Your task to perform on an android device: toggle notifications settings in the gmail app Image 0: 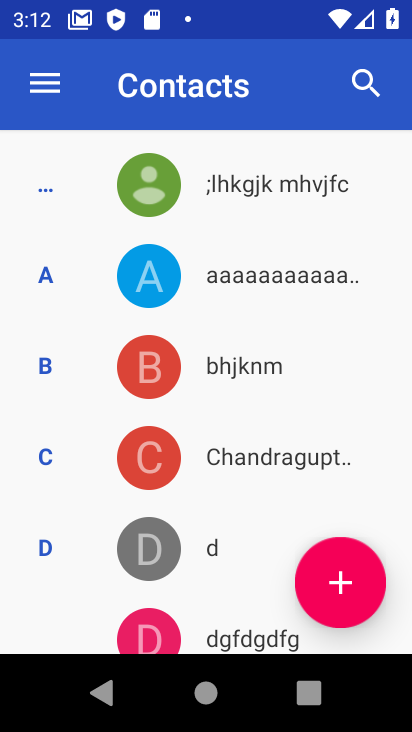
Step 0: press home button
Your task to perform on an android device: toggle notifications settings in the gmail app Image 1: 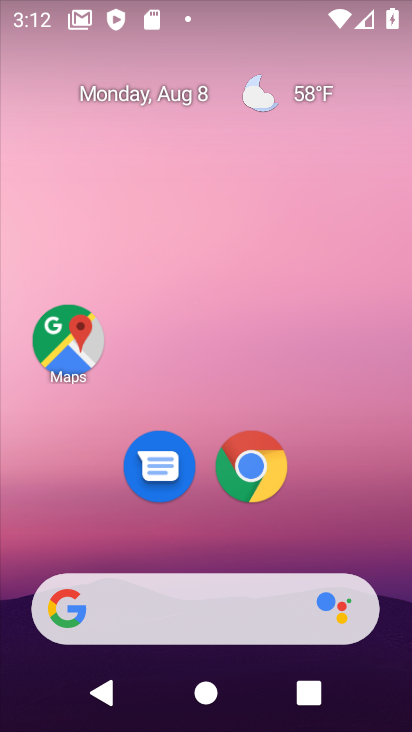
Step 1: drag from (183, 594) to (197, 227)
Your task to perform on an android device: toggle notifications settings in the gmail app Image 2: 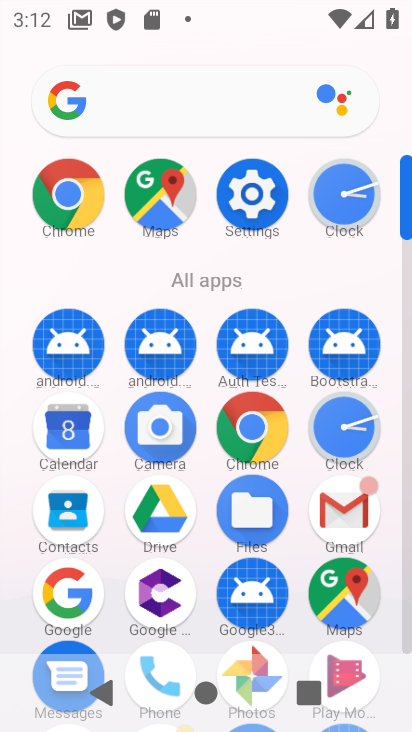
Step 2: click (339, 505)
Your task to perform on an android device: toggle notifications settings in the gmail app Image 3: 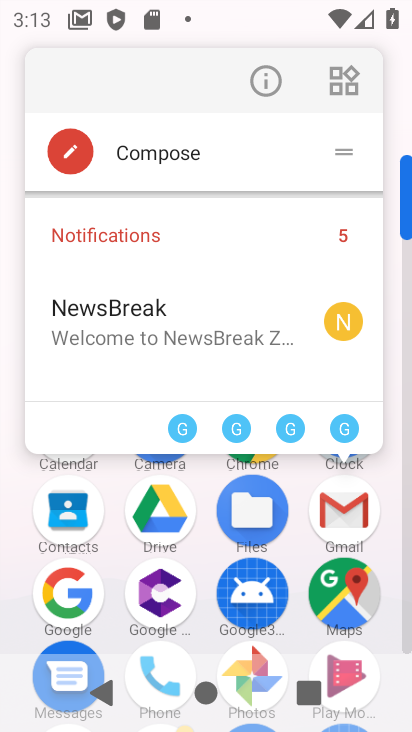
Step 3: click (360, 506)
Your task to perform on an android device: toggle notifications settings in the gmail app Image 4: 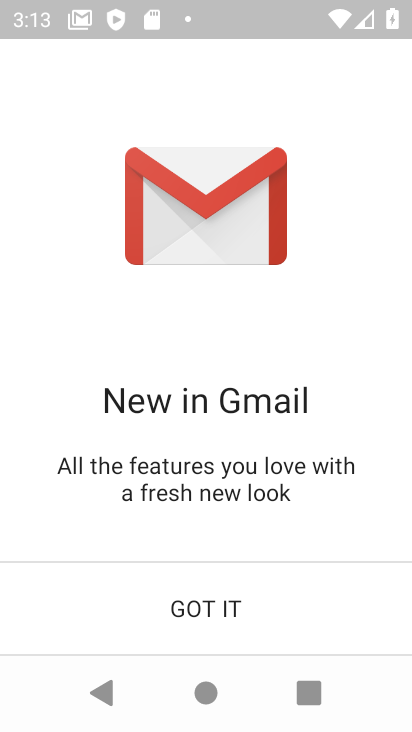
Step 4: click (212, 613)
Your task to perform on an android device: toggle notifications settings in the gmail app Image 5: 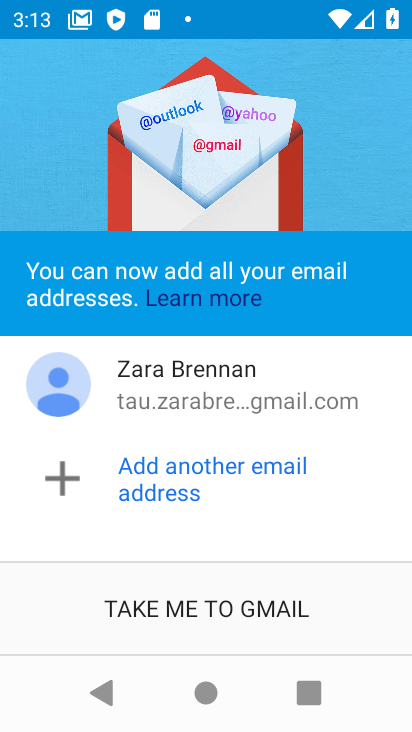
Step 5: click (212, 613)
Your task to perform on an android device: toggle notifications settings in the gmail app Image 6: 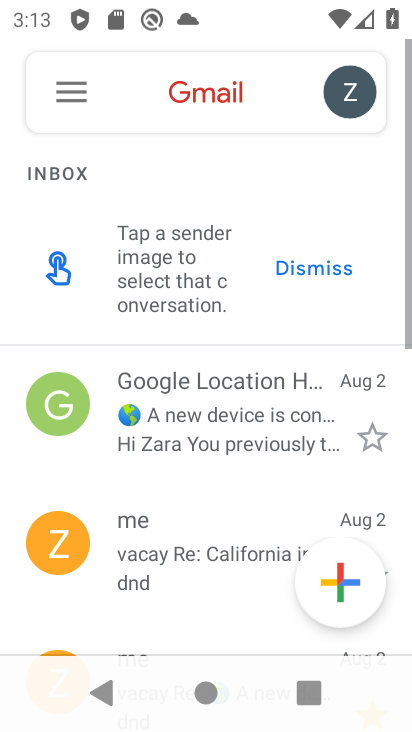
Step 6: click (64, 95)
Your task to perform on an android device: toggle notifications settings in the gmail app Image 7: 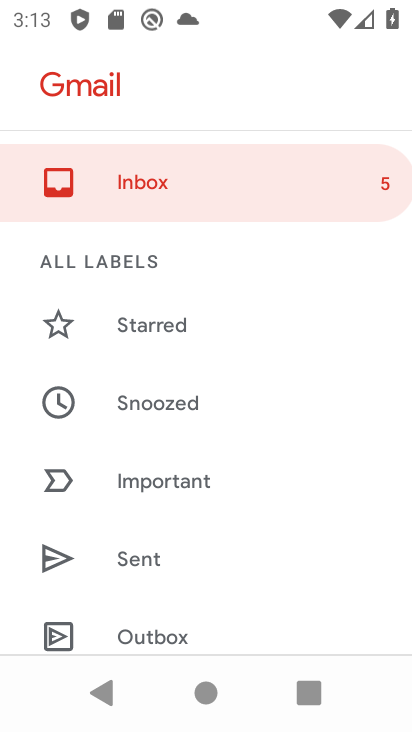
Step 7: drag from (227, 639) to (290, 205)
Your task to perform on an android device: toggle notifications settings in the gmail app Image 8: 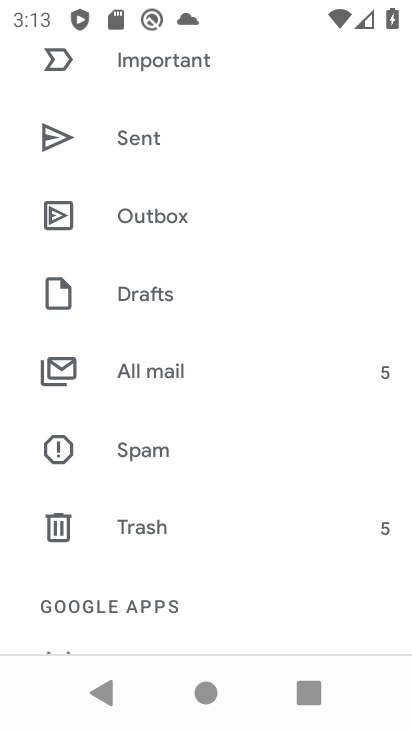
Step 8: drag from (151, 592) to (289, 172)
Your task to perform on an android device: toggle notifications settings in the gmail app Image 9: 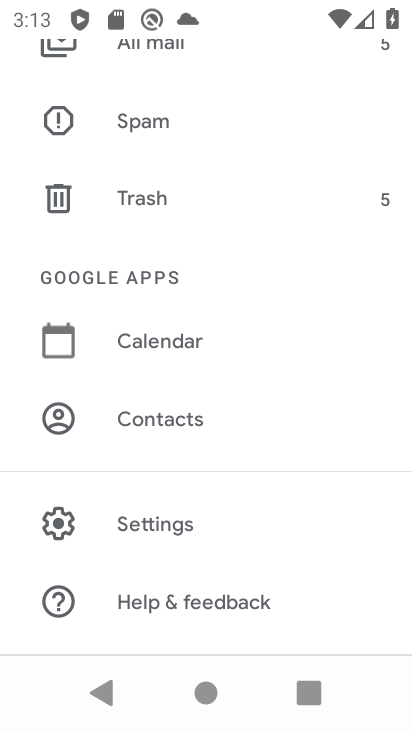
Step 9: click (159, 541)
Your task to perform on an android device: toggle notifications settings in the gmail app Image 10: 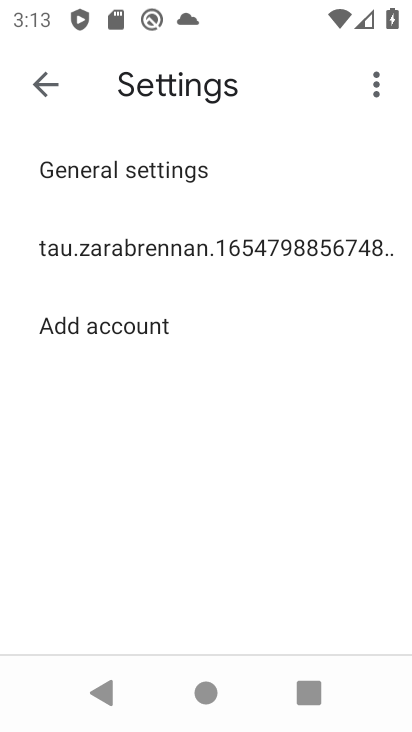
Step 10: click (161, 237)
Your task to perform on an android device: toggle notifications settings in the gmail app Image 11: 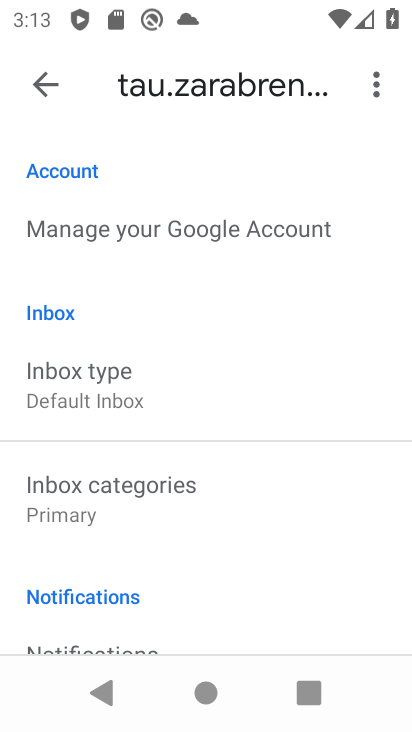
Step 11: drag from (199, 620) to (261, 343)
Your task to perform on an android device: toggle notifications settings in the gmail app Image 12: 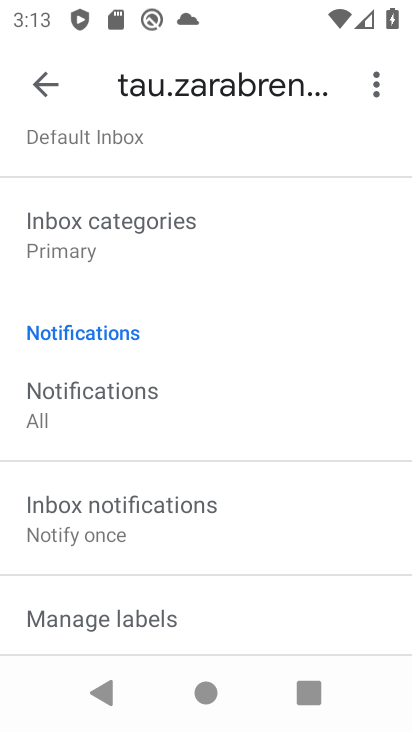
Step 12: click (98, 410)
Your task to perform on an android device: toggle notifications settings in the gmail app Image 13: 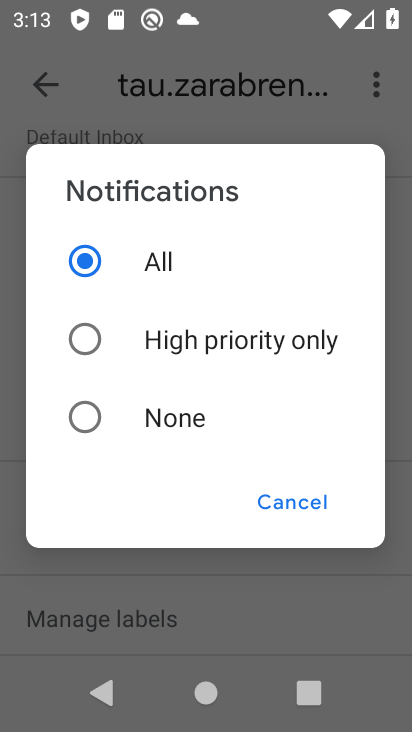
Step 13: click (155, 410)
Your task to perform on an android device: toggle notifications settings in the gmail app Image 14: 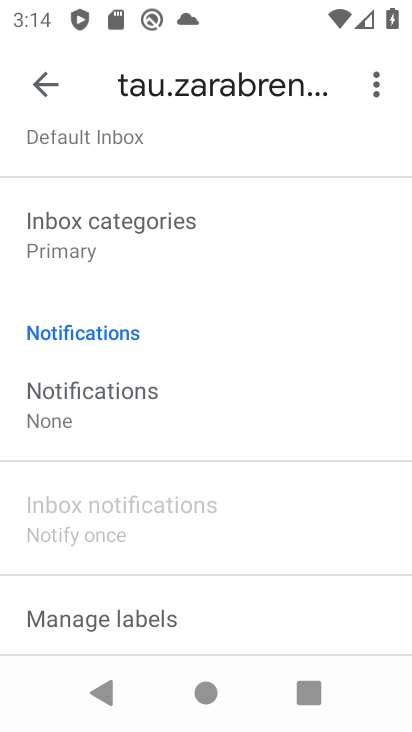
Step 14: task complete